Your task to perform on an android device: Find coffee shops on Maps Image 0: 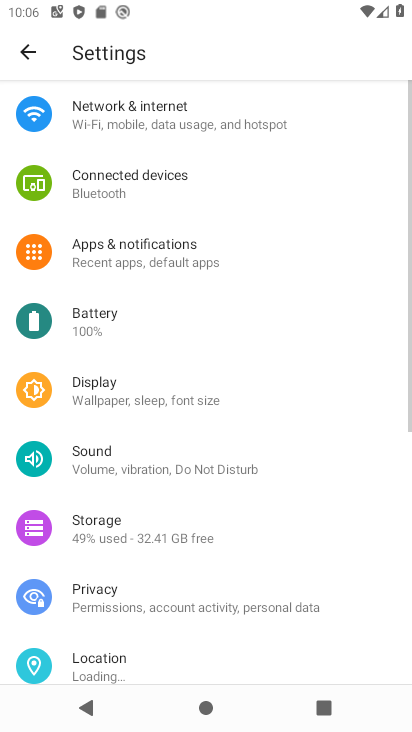
Step 0: press home button
Your task to perform on an android device: Find coffee shops on Maps Image 1: 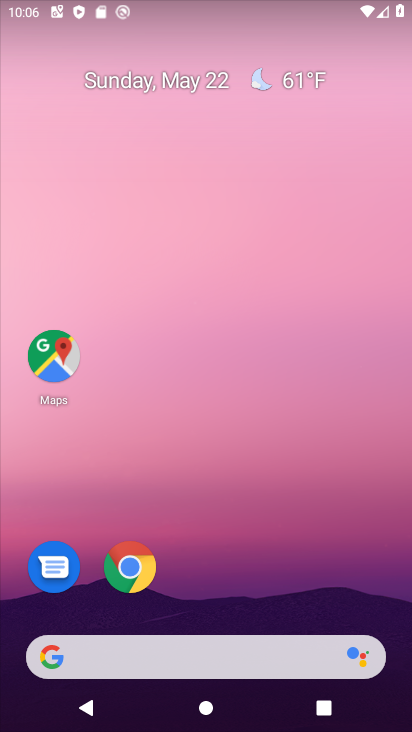
Step 1: click (40, 356)
Your task to perform on an android device: Find coffee shops on Maps Image 2: 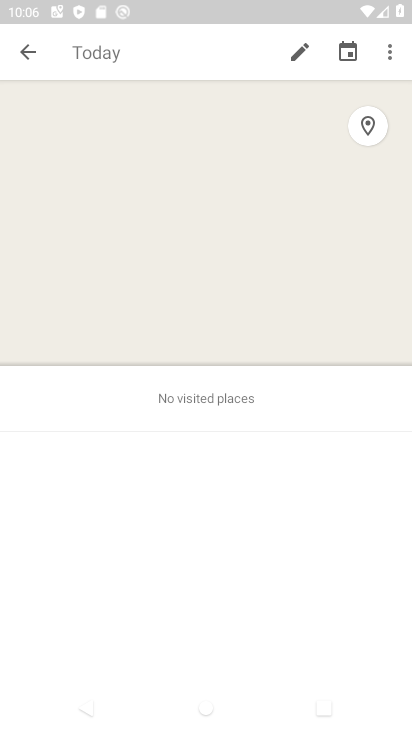
Step 2: click (35, 50)
Your task to perform on an android device: Find coffee shops on Maps Image 3: 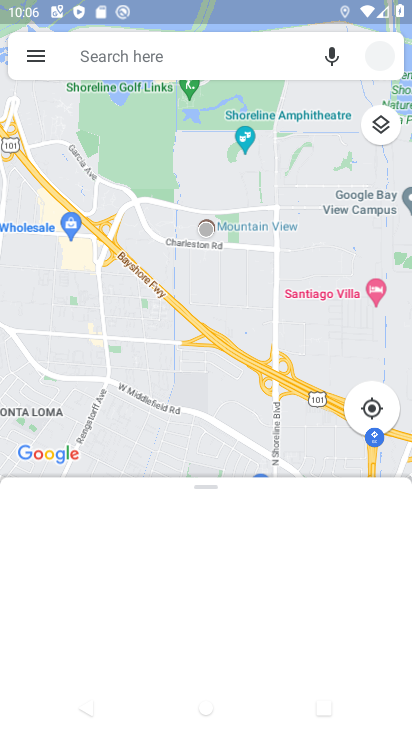
Step 3: click (130, 67)
Your task to perform on an android device: Find coffee shops on Maps Image 4: 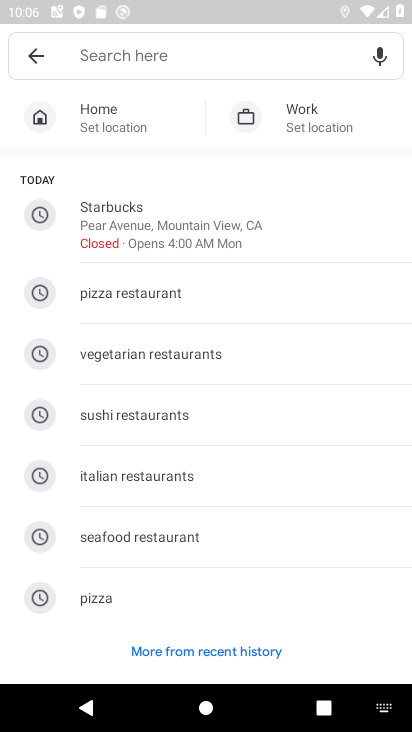
Step 4: drag from (127, 561) to (125, 236)
Your task to perform on an android device: Find coffee shops on Maps Image 5: 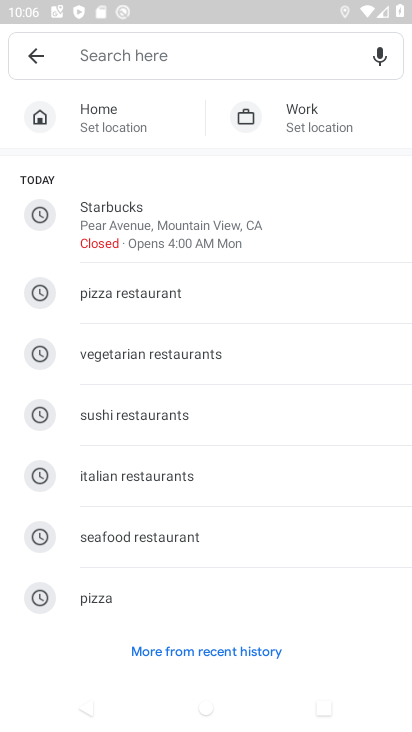
Step 5: click (230, 651)
Your task to perform on an android device: Find coffee shops on Maps Image 6: 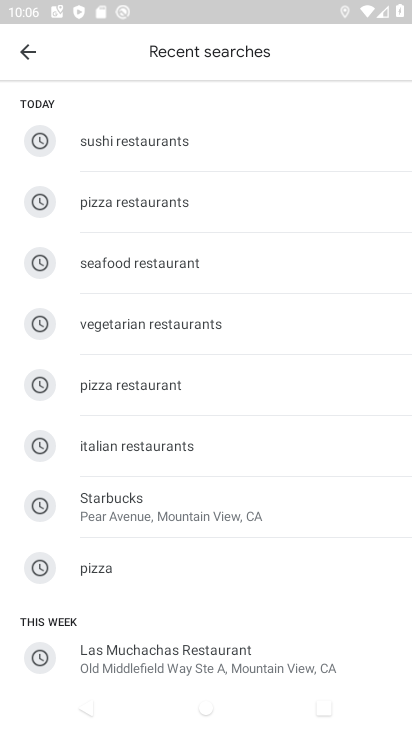
Step 6: drag from (216, 587) to (189, 81)
Your task to perform on an android device: Find coffee shops on Maps Image 7: 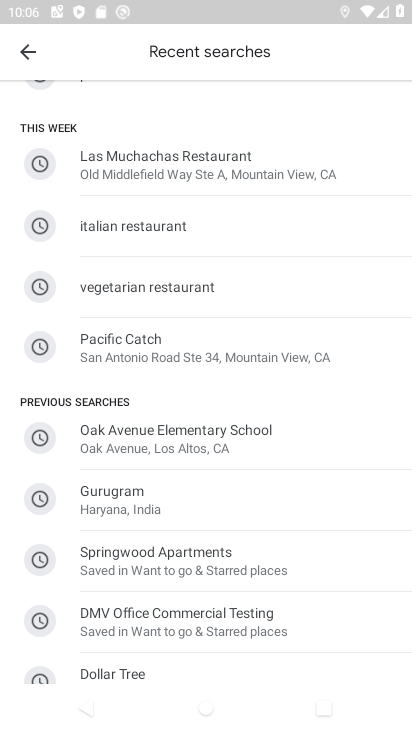
Step 7: drag from (161, 592) to (152, 88)
Your task to perform on an android device: Find coffee shops on Maps Image 8: 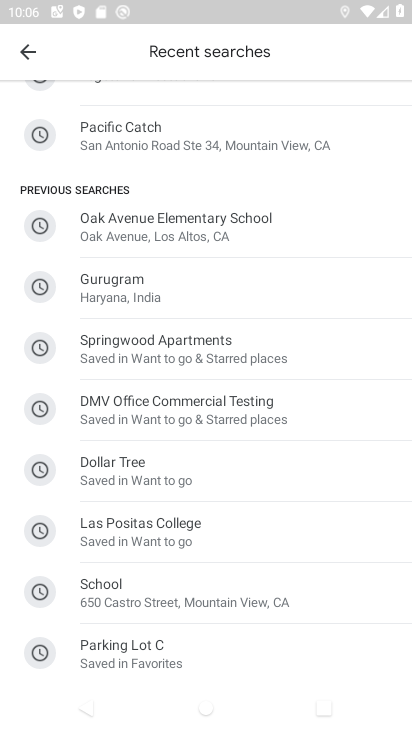
Step 8: drag from (154, 266) to (174, 700)
Your task to perform on an android device: Find coffee shops on Maps Image 9: 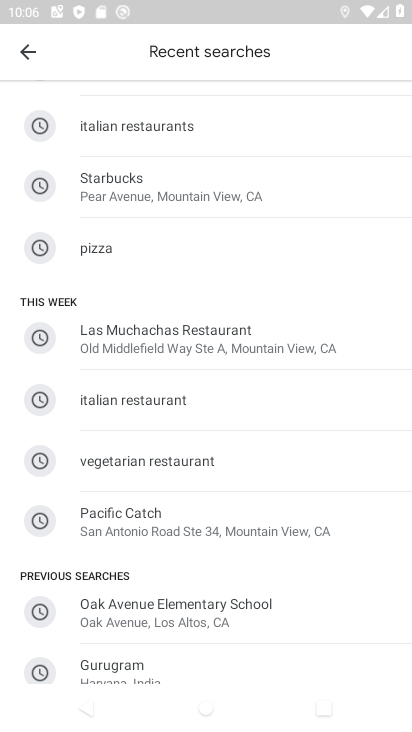
Step 9: click (29, 61)
Your task to perform on an android device: Find coffee shops on Maps Image 10: 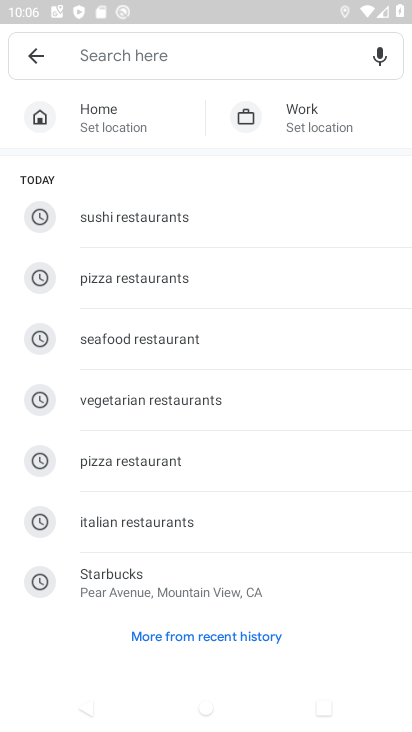
Step 10: click (132, 60)
Your task to perform on an android device: Find coffee shops on Maps Image 11: 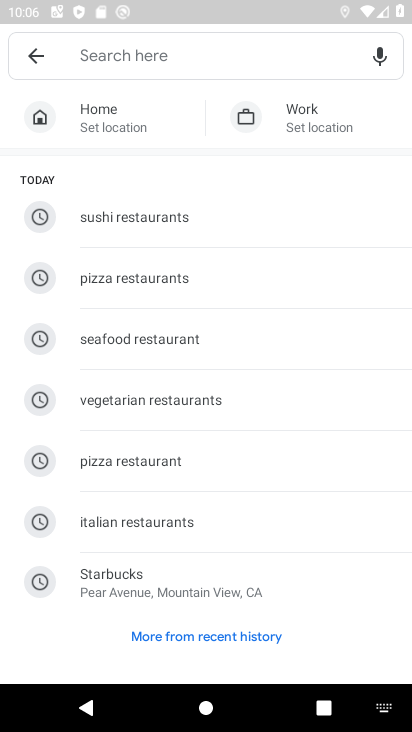
Step 11: type "cooffee"
Your task to perform on an android device: Find coffee shops on Maps Image 12: 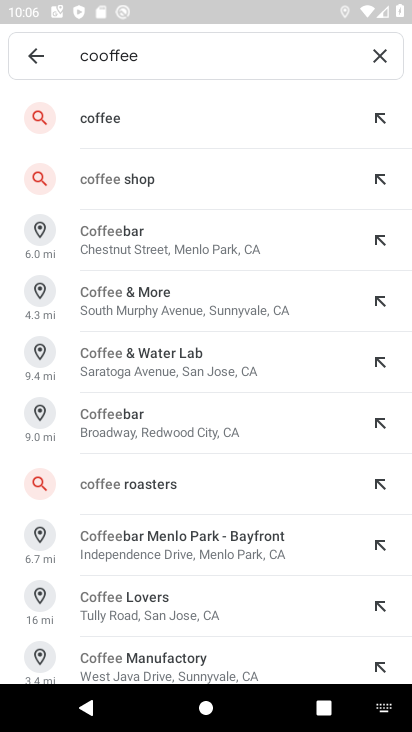
Step 12: click (99, 120)
Your task to perform on an android device: Find coffee shops on Maps Image 13: 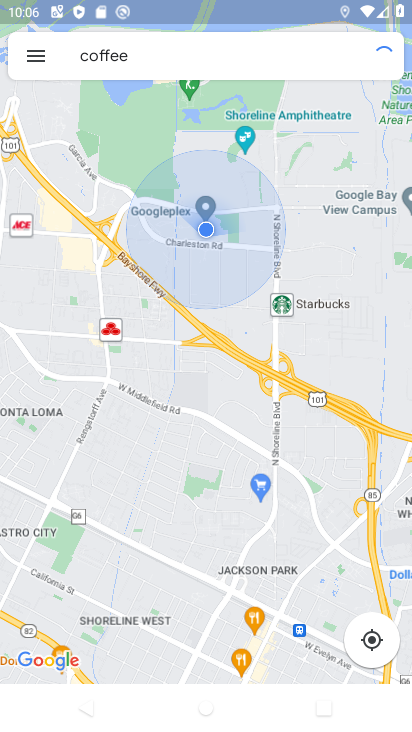
Step 13: task complete